Your task to perform on an android device: Show me popular games on the Play Store Image 0: 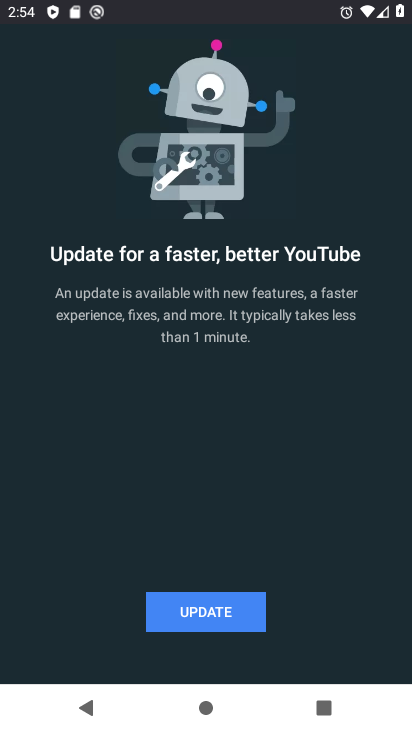
Step 0: press back button
Your task to perform on an android device: Show me popular games on the Play Store Image 1: 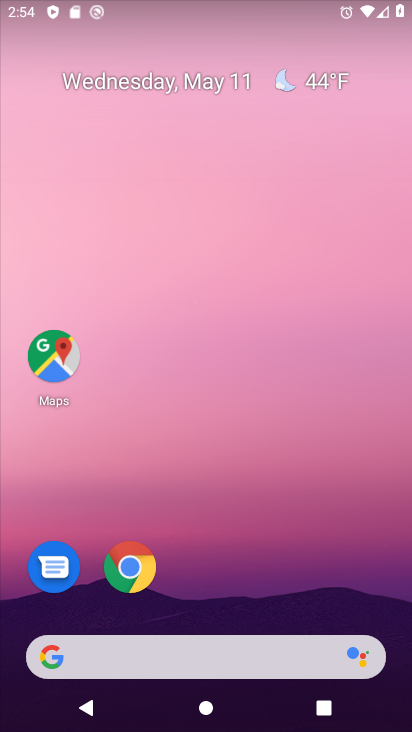
Step 1: drag from (276, 509) to (225, 18)
Your task to perform on an android device: Show me popular games on the Play Store Image 2: 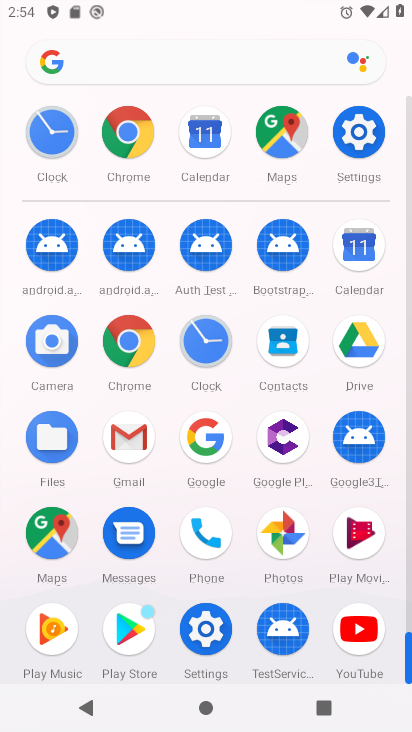
Step 2: drag from (14, 541) to (1, 208)
Your task to perform on an android device: Show me popular games on the Play Store Image 3: 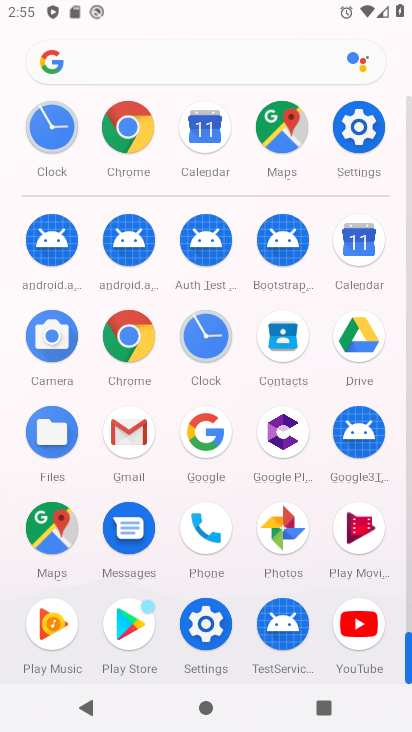
Step 3: click (128, 619)
Your task to perform on an android device: Show me popular games on the Play Store Image 4: 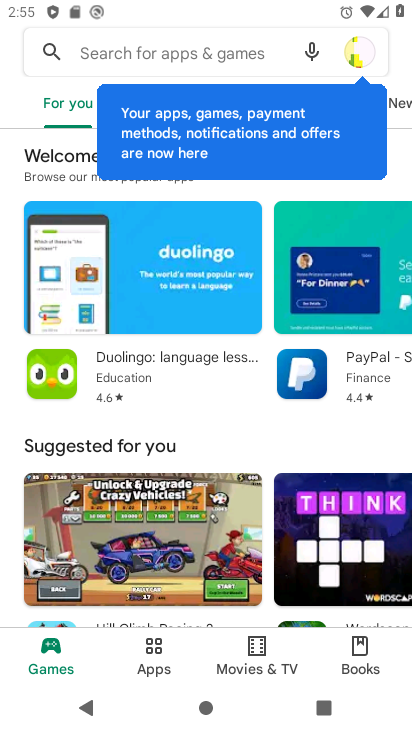
Step 4: task complete